Your task to perform on an android device: turn on showing notifications on the lock screen Image 0: 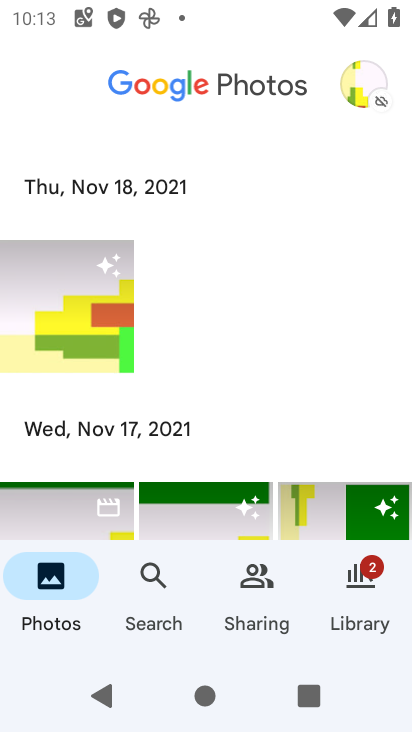
Step 0: press home button
Your task to perform on an android device: turn on showing notifications on the lock screen Image 1: 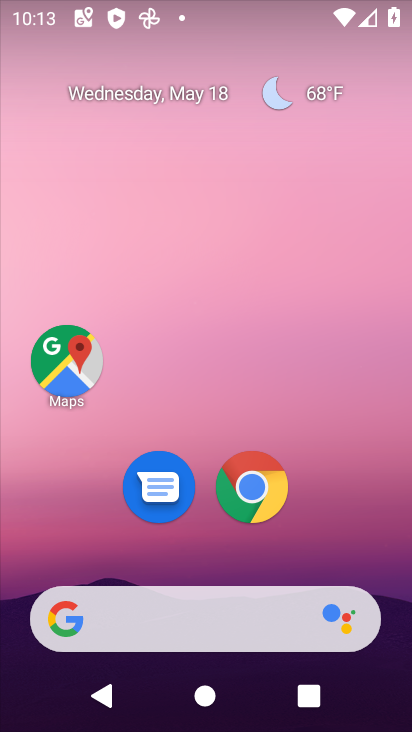
Step 1: drag from (328, 498) to (333, 69)
Your task to perform on an android device: turn on showing notifications on the lock screen Image 2: 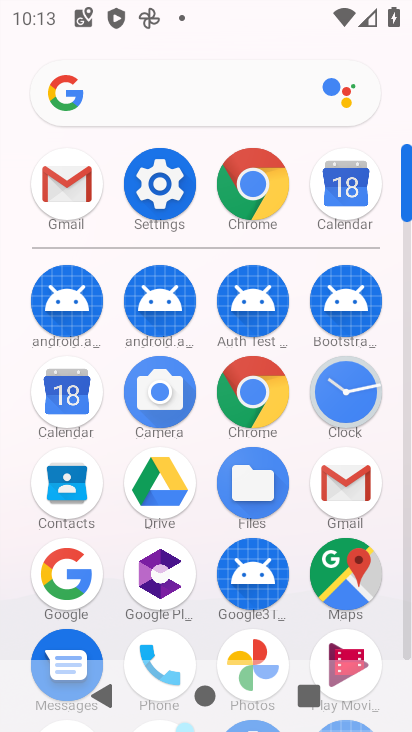
Step 2: click (178, 195)
Your task to perform on an android device: turn on showing notifications on the lock screen Image 3: 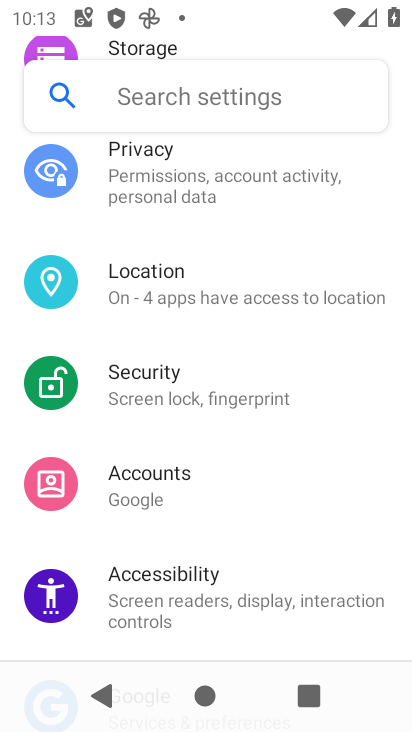
Step 3: drag from (300, 535) to (309, 213)
Your task to perform on an android device: turn on showing notifications on the lock screen Image 4: 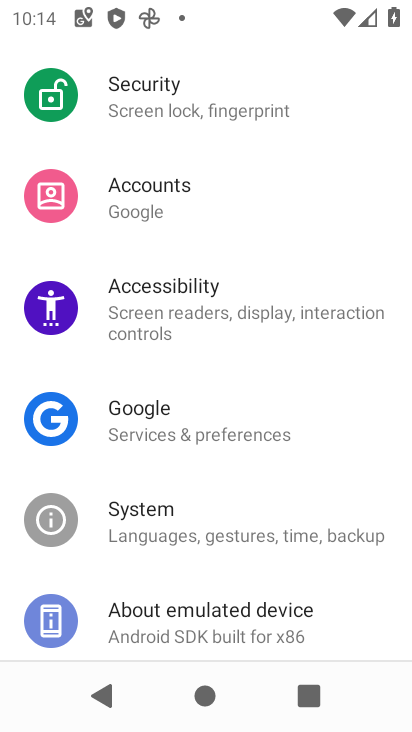
Step 4: drag from (310, 210) to (286, 595)
Your task to perform on an android device: turn on showing notifications on the lock screen Image 5: 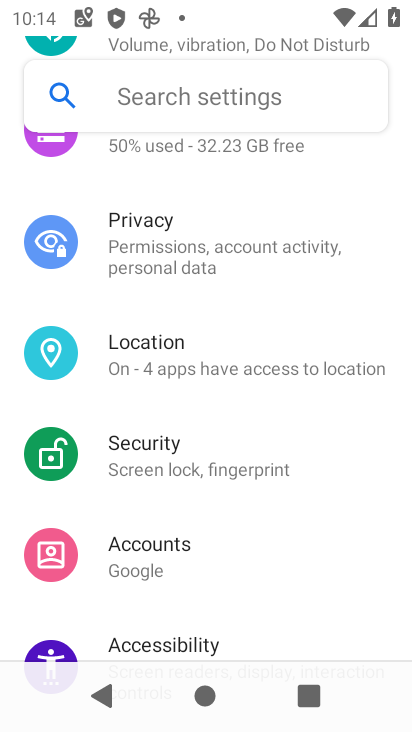
Step 5: drag from (284, 210) to (266, 610)
Your task to perform on an android device: turn on showing notifications on the lock screen Image 6: 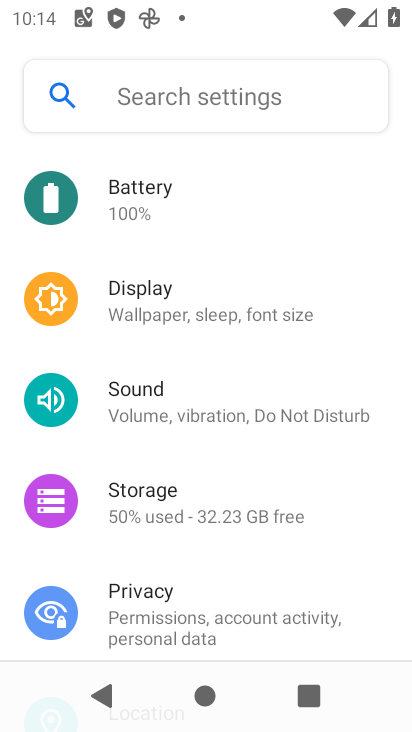
Step 6: drag from (303, 227) to (299, 581)
Your task to perform on an android device: turn on showing notifications on the lock screen Image 7: 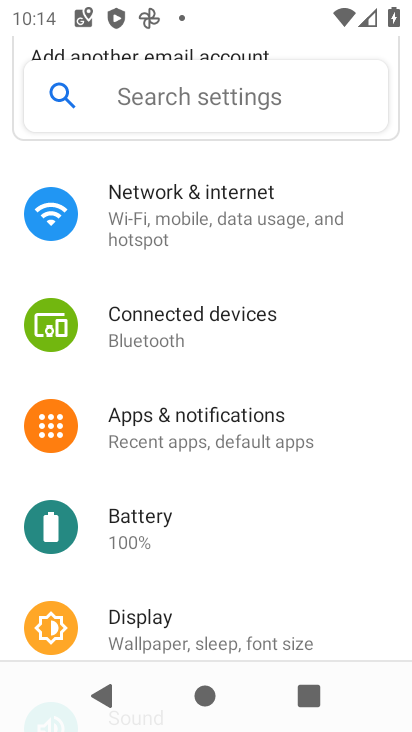
Step 7: click (283, 430)
Your task to perform on an android device: turn on showing notifications on the lock screen Image 8: 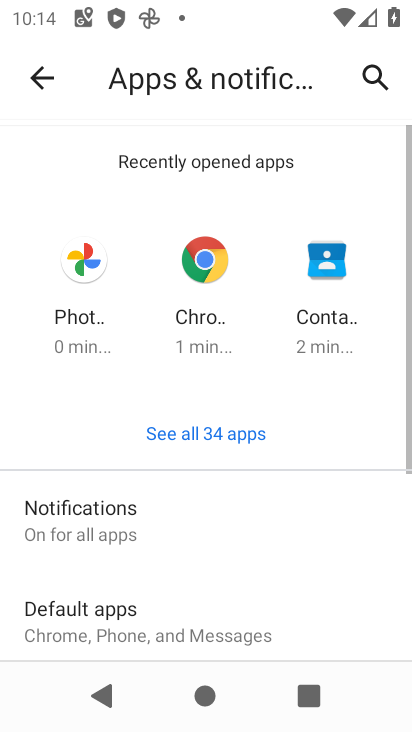
Step 8: click (213, 542)
Your task to perform on an android device: turn on showing notifications on the lock screen Image 9: 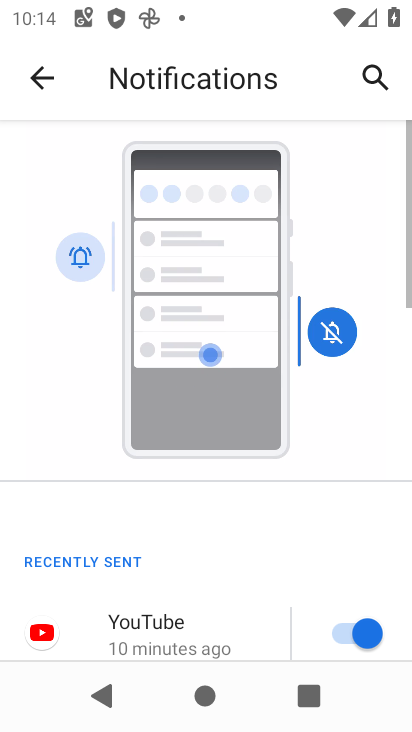
Step 9: drag from (239, 577) to (347, 202)
Your task to perform on an android device: turn on showing notifications on the lock screen Image 10: 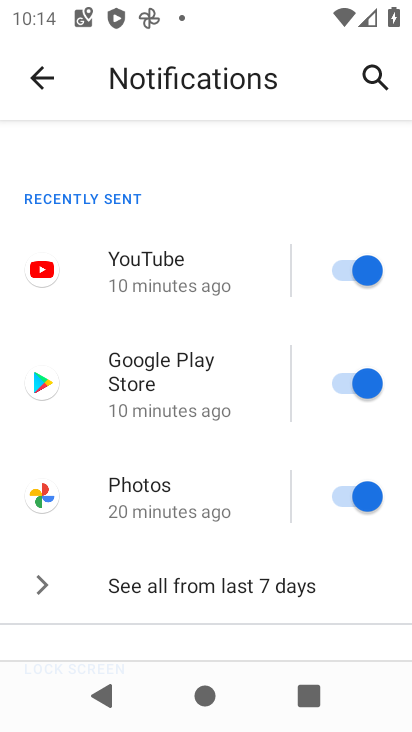
Step 10: drag from (245, 549) to (249, 305)
Your task to perform on an android device: turn on showing notifications on the lock screen Image 11: 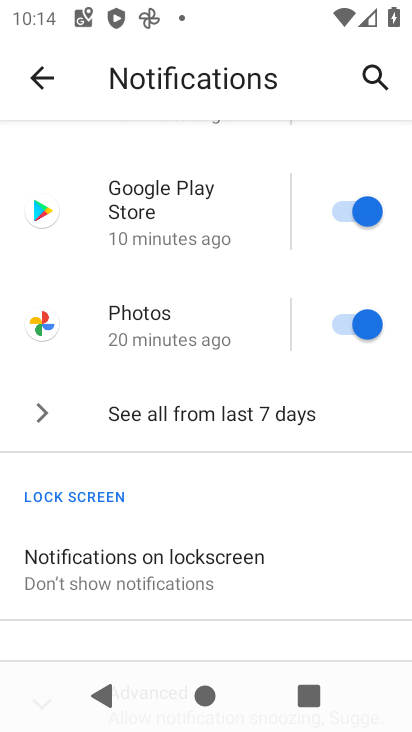
Step 11: click (167, 570)
Your task to perform on an android device: turn on showing notifications on the lock screen Image 12: 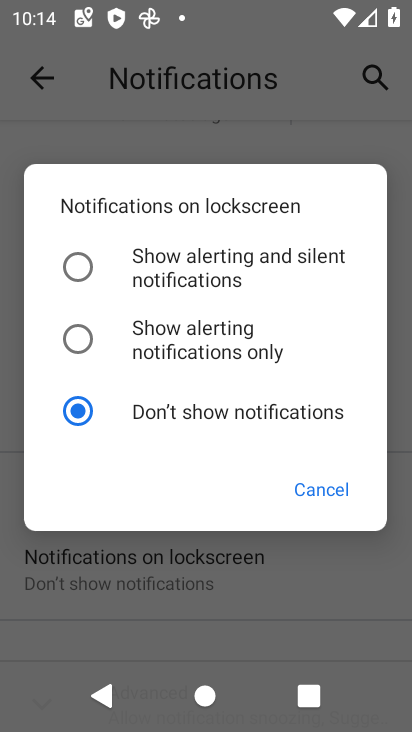
Step 12: click (82, 274)
Your task to perform on an android device: turn on showing notifications on the lock screen Image 13: 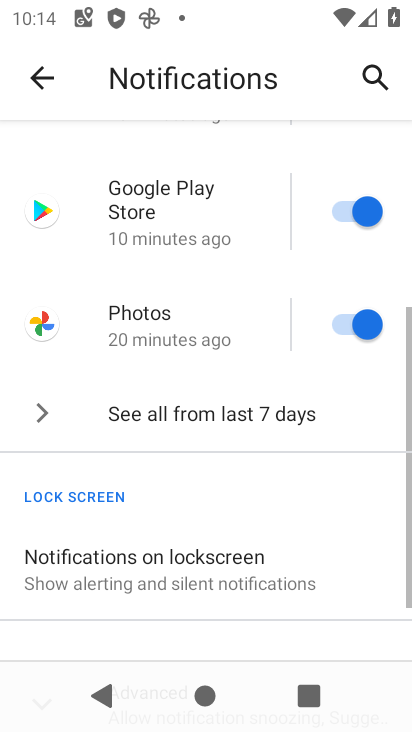
Step 13: task complete